Your task to perform on an android device: open chrome privacy settings Image 0: 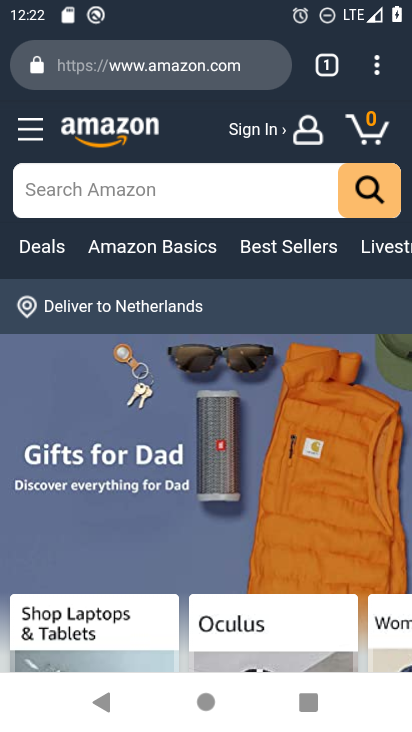
Step 0: press home button
Your task to perform on an android device: open chrome privacy settings Image 1: 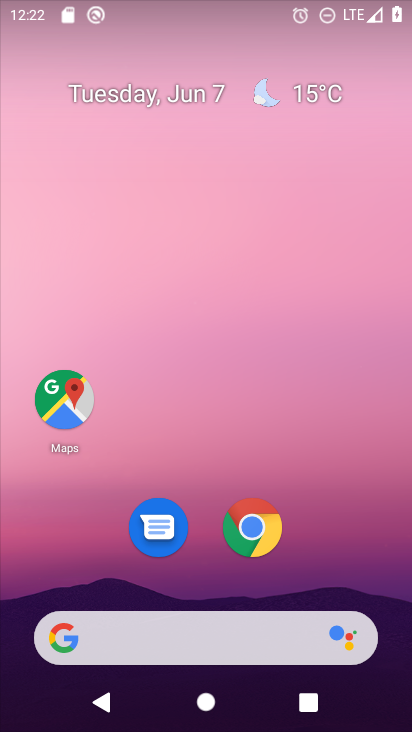
Step 1: drag from (369, 546) to (326, 122)
Your task to perform on an android device: open chrome privacy settings Image 2: 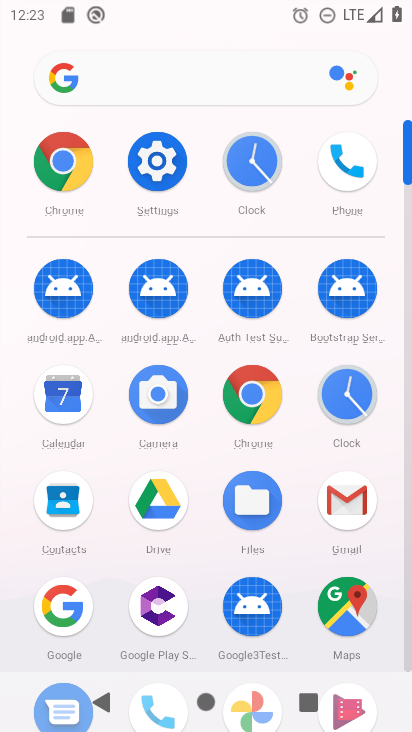
Step 2: click (252, 406)
Your task to perform on an android device: open chrome privacy settings Image 3: 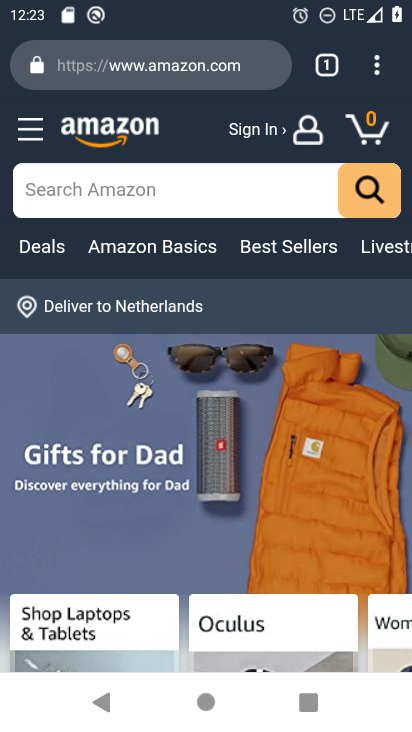
Step 3: click (374, 71)
Your task to perform on an android device: open chrome privacy settings Image 4: 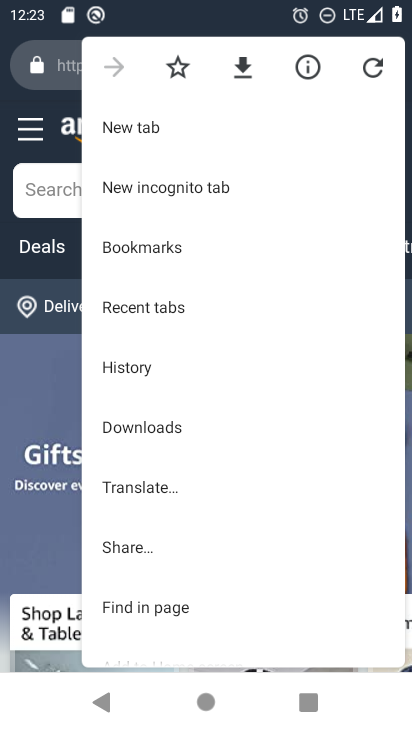
Step 4: drag from (271, 476) to (292, 257)
Your task to perform on an android device: open chrome privacy settings Image 5: 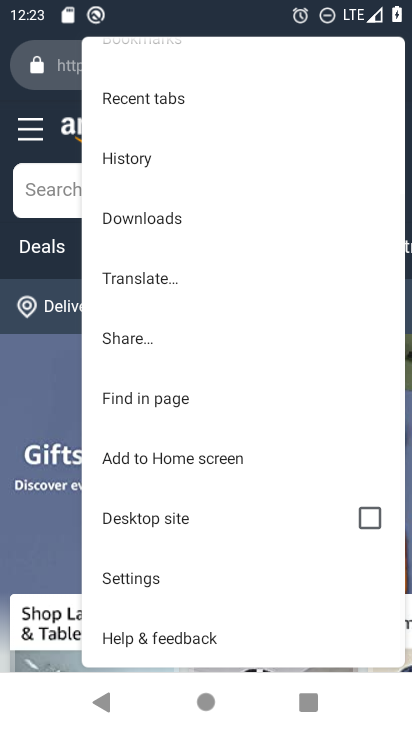
Step 5: drag from (291, 471) to (291, 252)
Your task to perform on an android device: open chrome privacy settings Image 6: 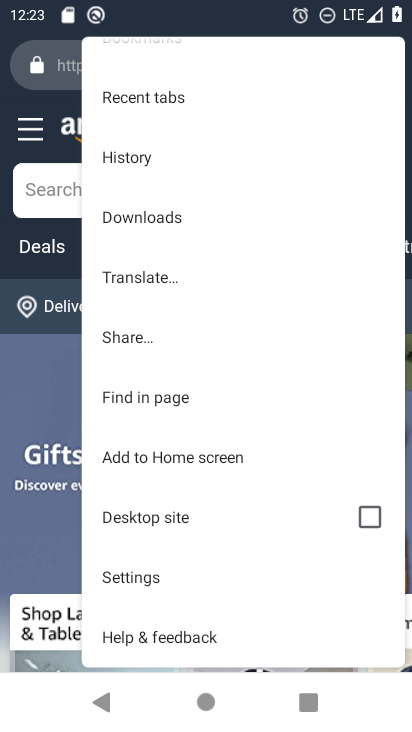
Step 6: drag from (287, 236) to (287, 477)
Your task to perform on an android device: open chrome privacy settings Image 7: 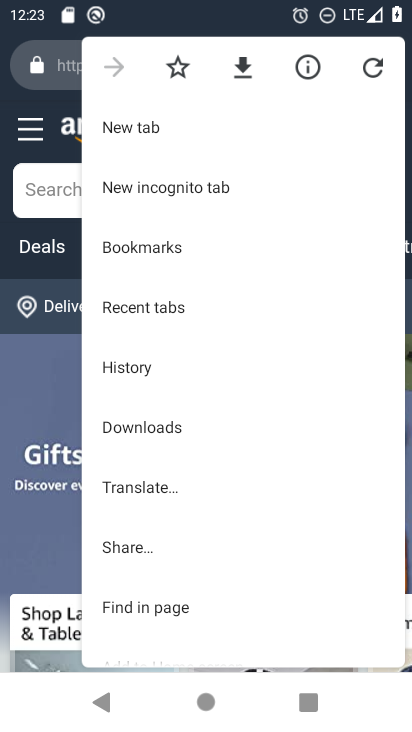
Step 7: drag from (299, 270) to (305, 493)
Your task to perform on an android device: open chrome privacy settings Image 8: 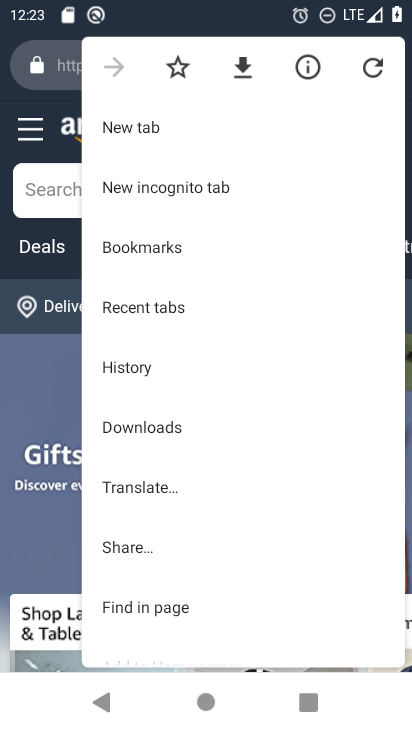
Step 8: drag from (308, 479) to (316, 312)
Your task to perform on an android device: open chrome privacy settings Image 9: 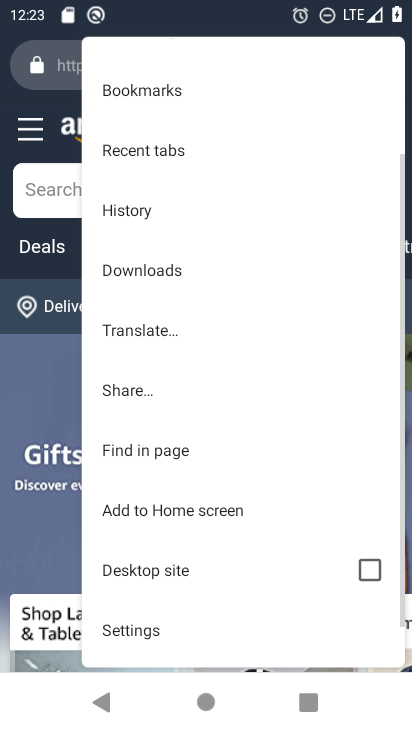
Step 9: drag from (305, 472) to (304, 281)
Your task to perform on an android device: open chrome privacy settings Image 10: 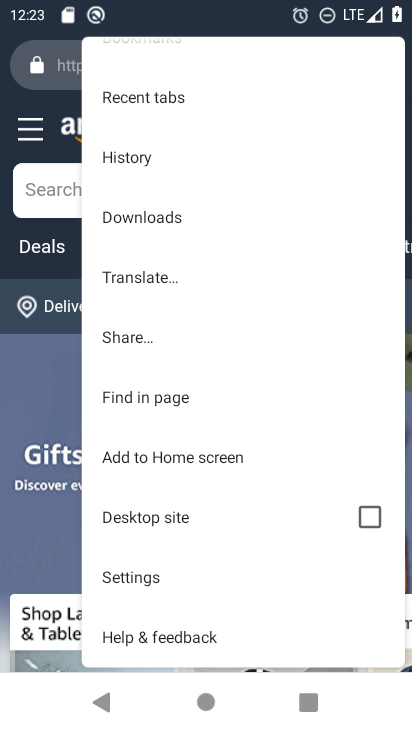
Step 10: click (171, 587)
Your task to perform on an android device: open chrome privacy settings Image 11: 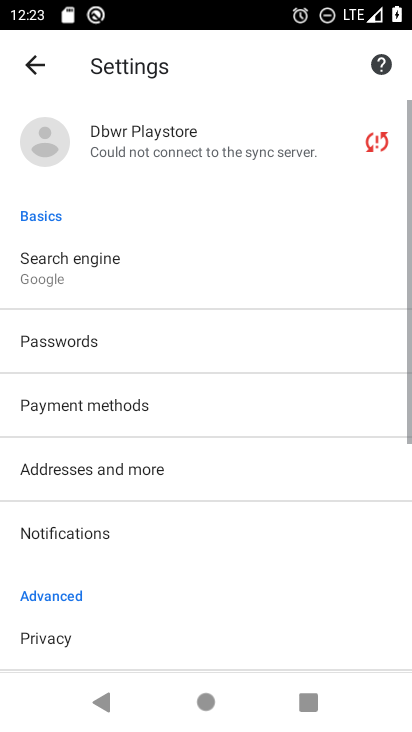
Step 11: drag from (314, 459) to (315, 318)
Your task to perform on an android device: open chrome privacy settings Image 12: 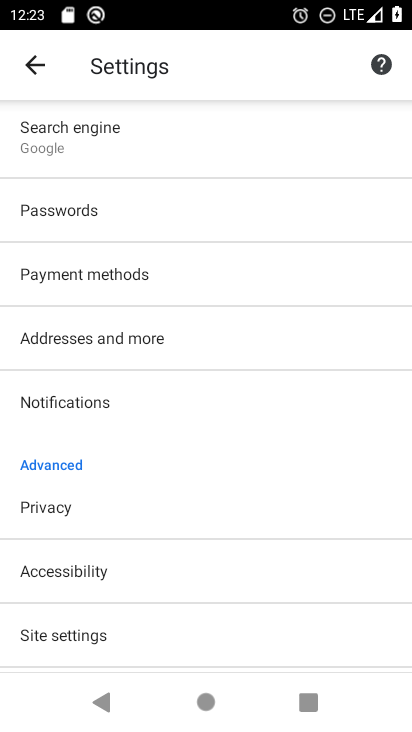
Step 12: drag from (329, 477) to (329, 365)
Your task to perform on an android device: open chrome privacy settings Image 13: 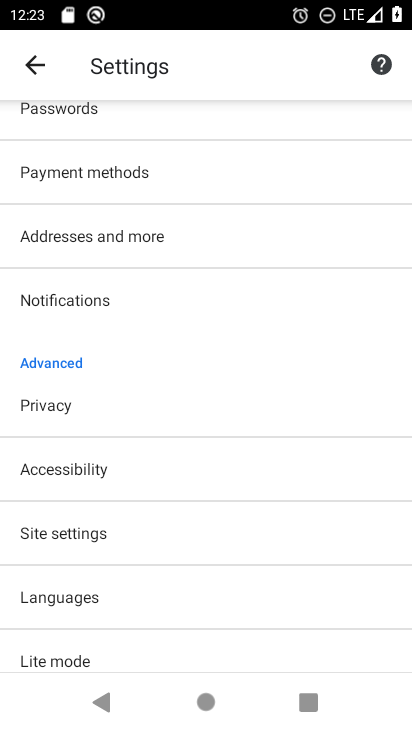
Step 13: drag from (274, 566) to (275, 405)
Your task to perform on an android device: open chrome privacy settings Image 14: 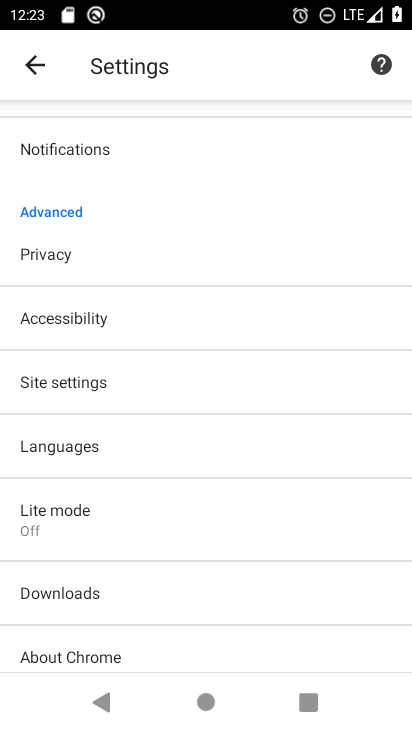
Step 14: click (66, 249)
Your task to perform on an android device: open chrome privacy settings Image 15: 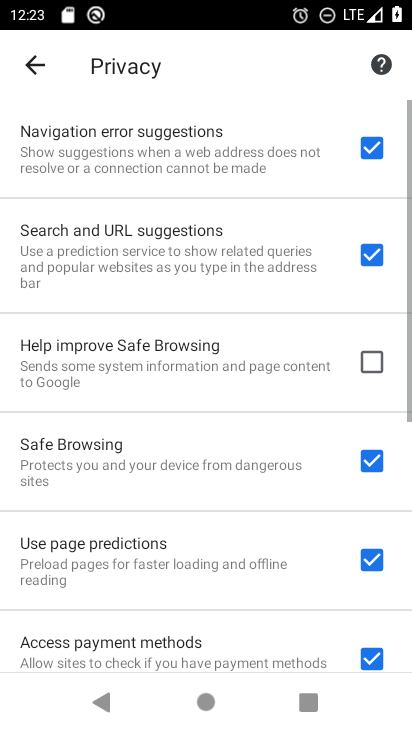
Step 15: task complete